Your task to perform on an android device: Go to accessibility settings Image 0: 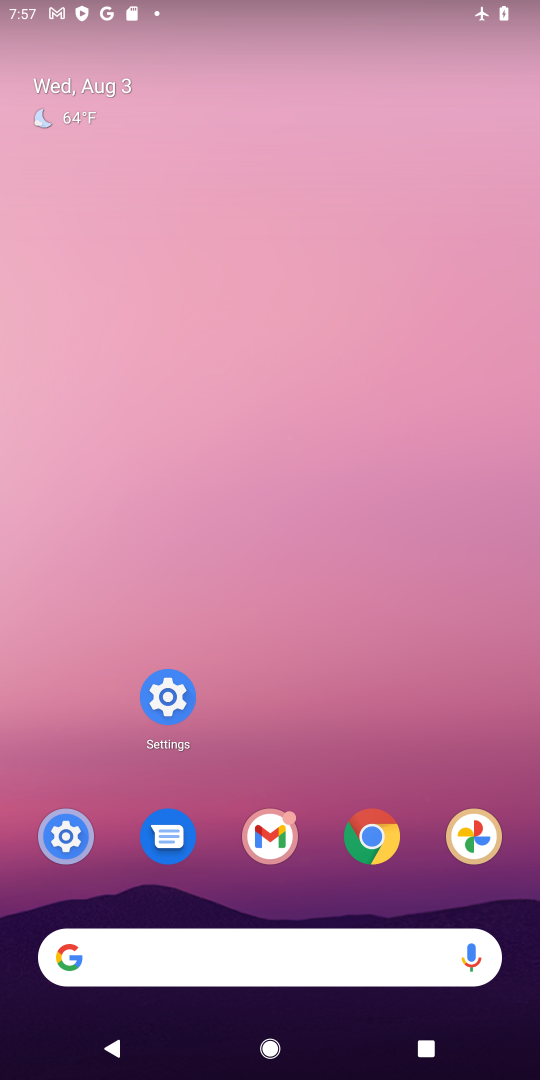
Step 0: click (174, 705)
Your task to perform on an android device: Go to accessibility settings Image 1: 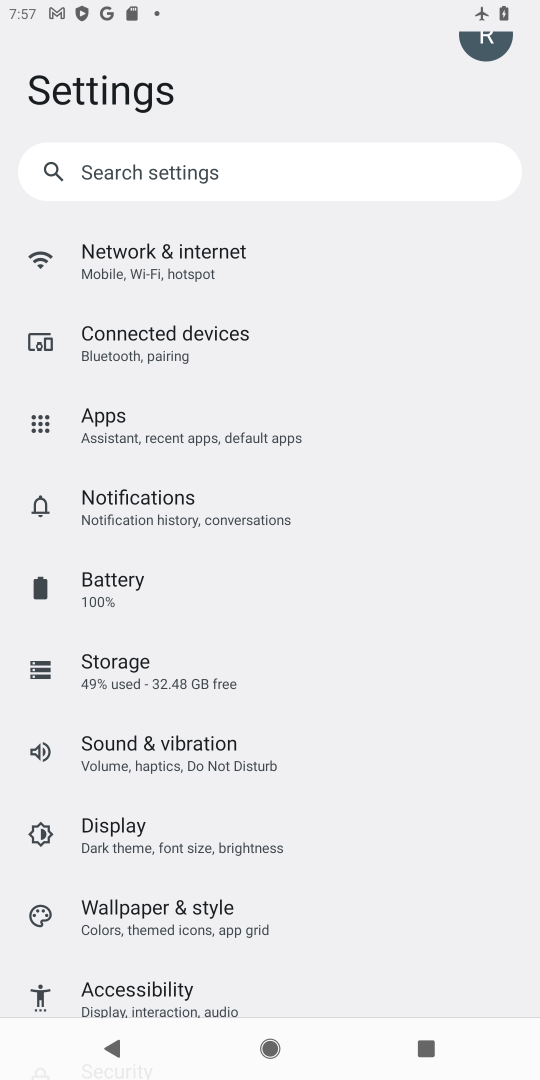
Step 1: drag from (450, 964) to (400, 395)
Your task to perform on an android device: Go to accessibility settings Image 2: 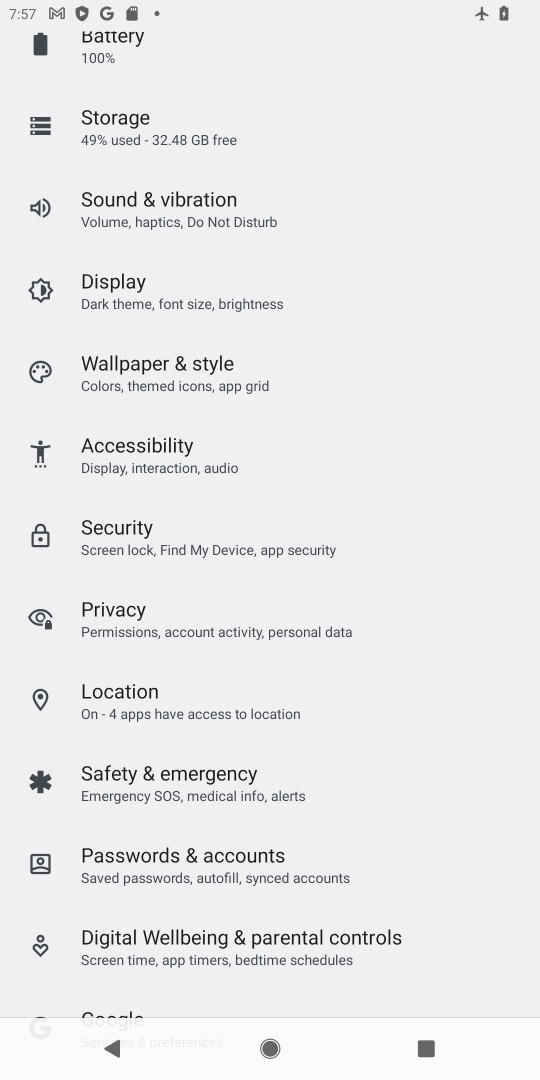
Step 2: drag from (455, 961) to (382, 426)
Your task to perform on an android device: Go to accessibility settings Image 3: 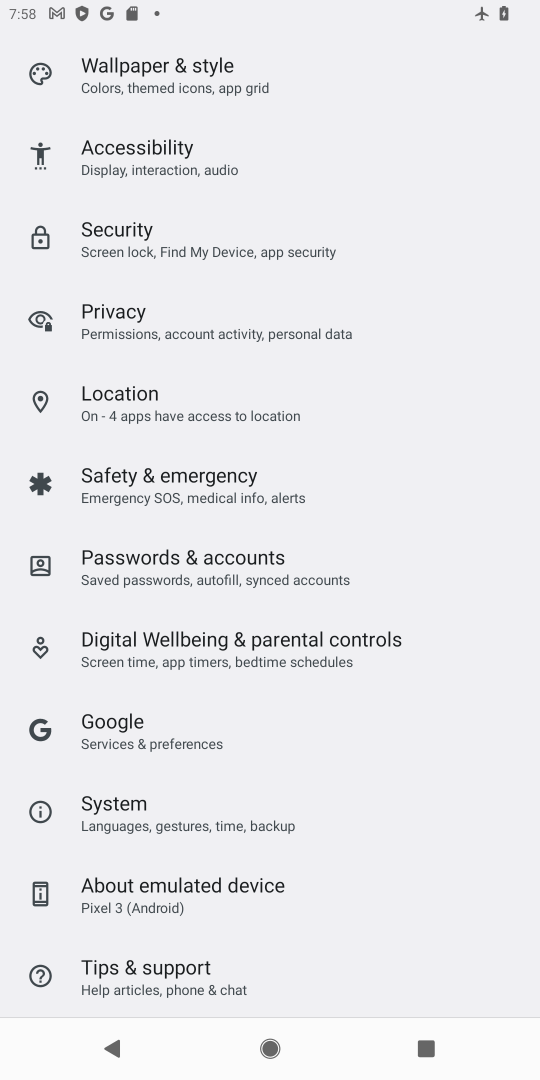
Step 3: drag from (397, 953) to (378, 515)
Your task to perform on an android device: Go to accessibility settings Image 4: 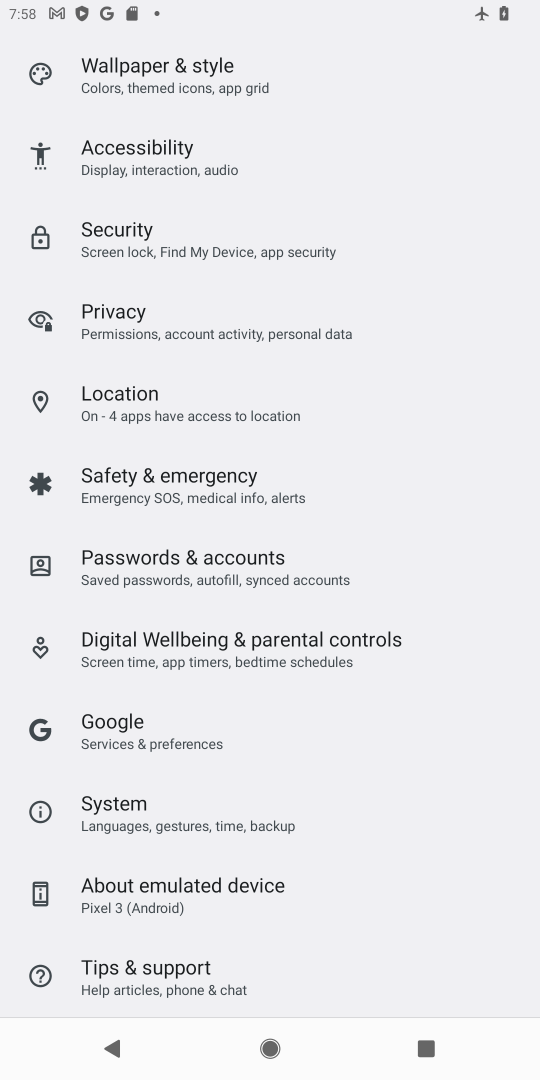
Step 4: drag from (390, 876) to (359, 405)
Your task to perform on an android device: Go to accessibility settings Image 5: 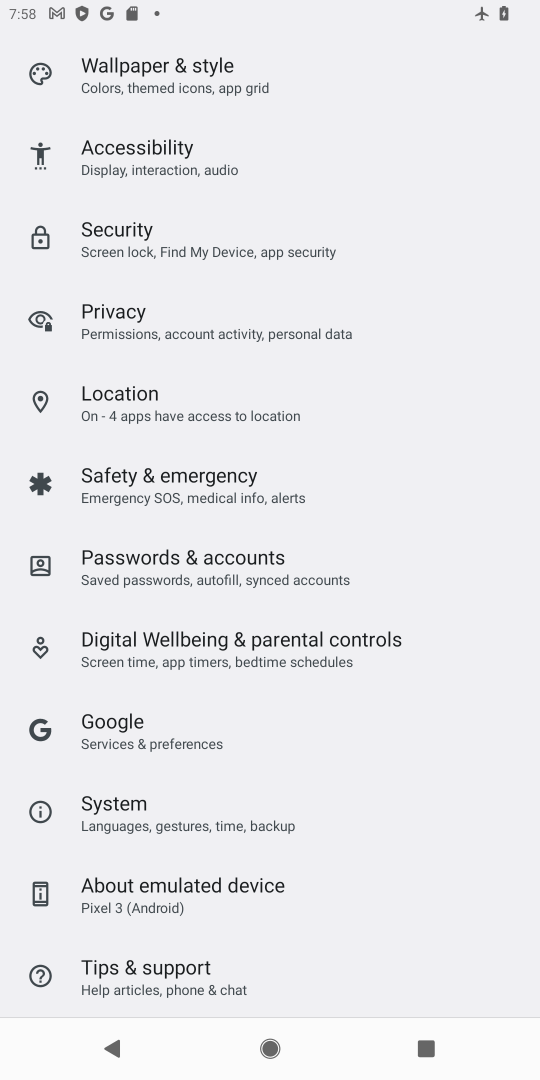
Step 5: click (124, 153)
Your task to perform on an android device: Go to accessibility settings Image 6: 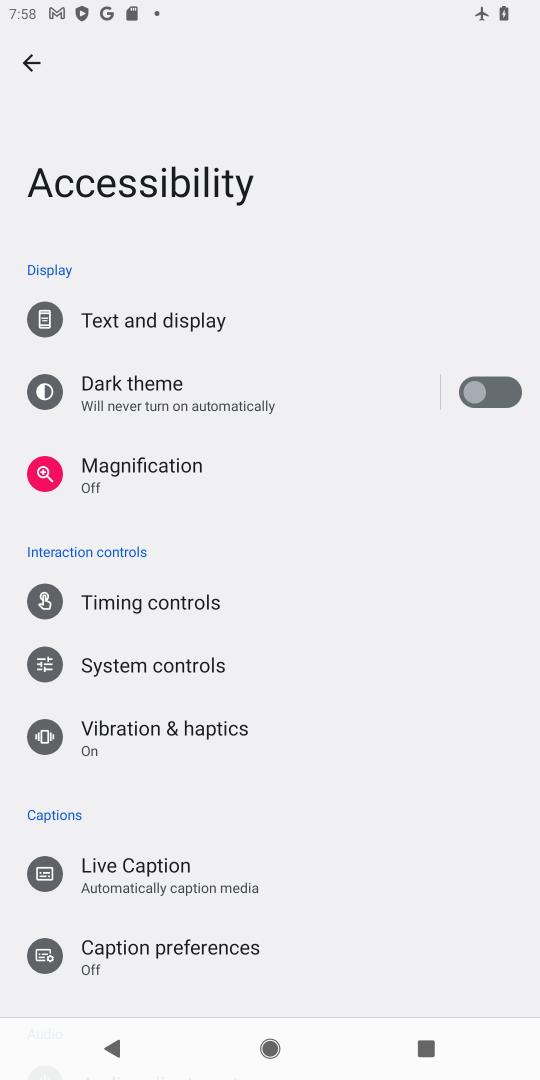
Step 6: task complete